Your task to perform on an android device: open a bookmark in the chrome app Image 0: 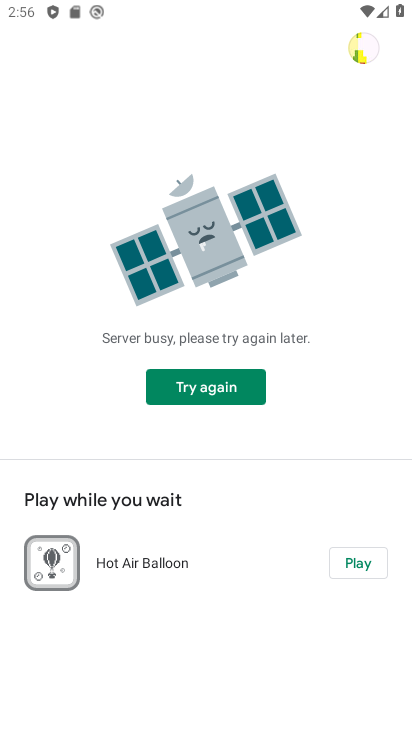
Step 0: press home button
Your task to perform on an android device: open a bookmark in the chrome app Image 1: 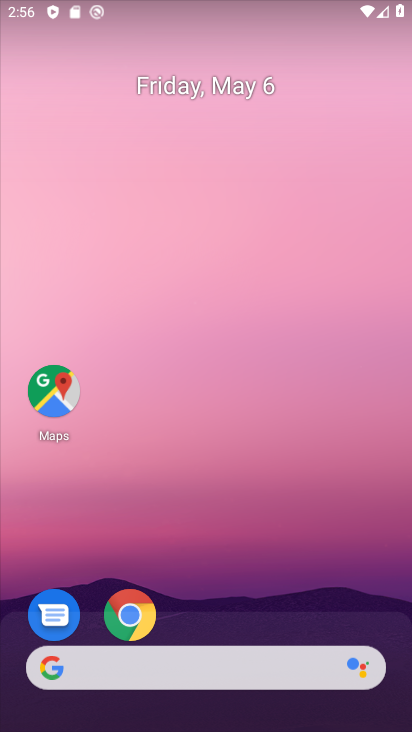
Step 1: click (134, 612)
Your task to perform on an android device: open a bookmark in the chrome app Image 2: 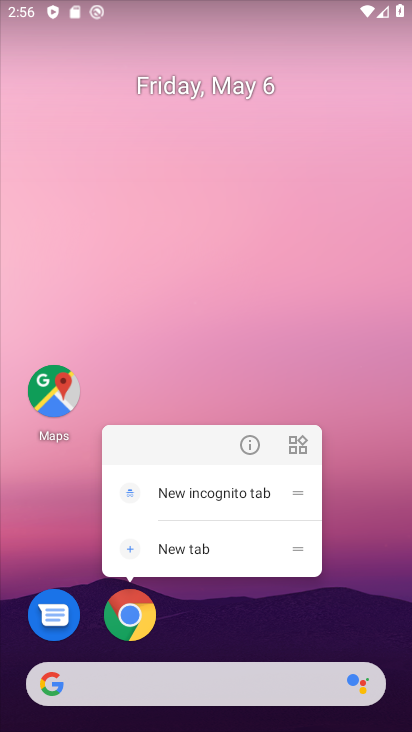
Step 2: click (137, 617)
Your task to perform on an android device: open a bookmark in the chrome app Image 3: 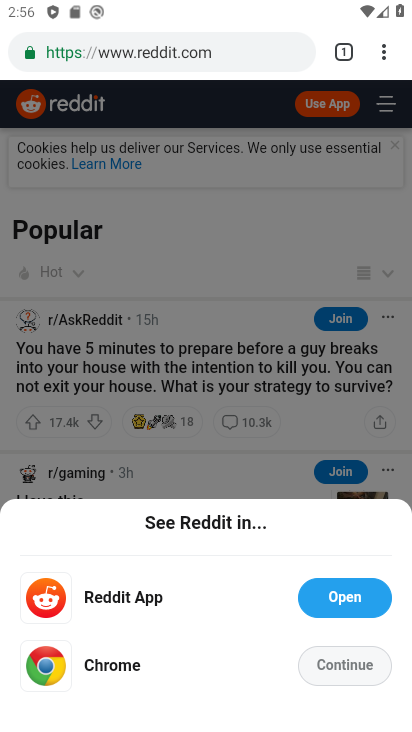
Step 3: click (385, 53)
Your task to perform on an android device: open a bookmark in the chrome app Image 4: 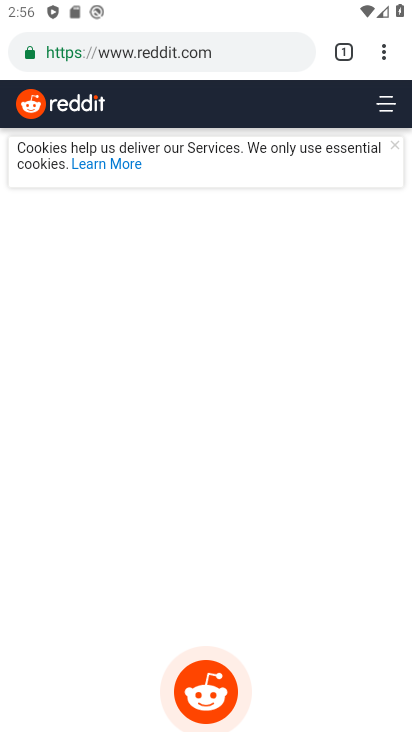
Step 4: click (385, 53)
Your task to perform on an android device: open a bookmark in the chrome app Image 5: 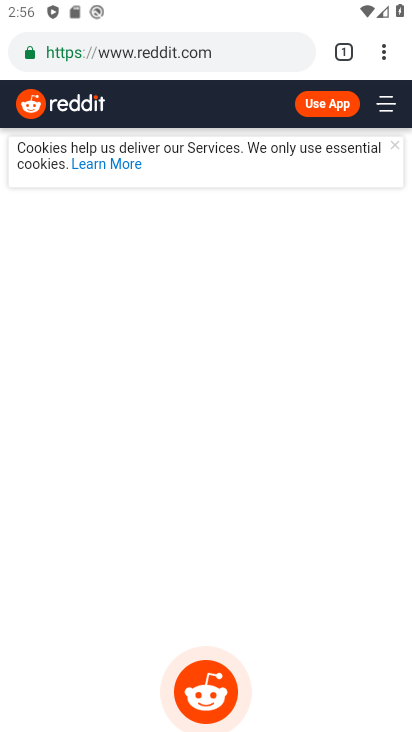
Step 5: drag from (385, 53) to (182, 199)
Your task to perform on an android device: open a bookmark in the chrome app Image 6: 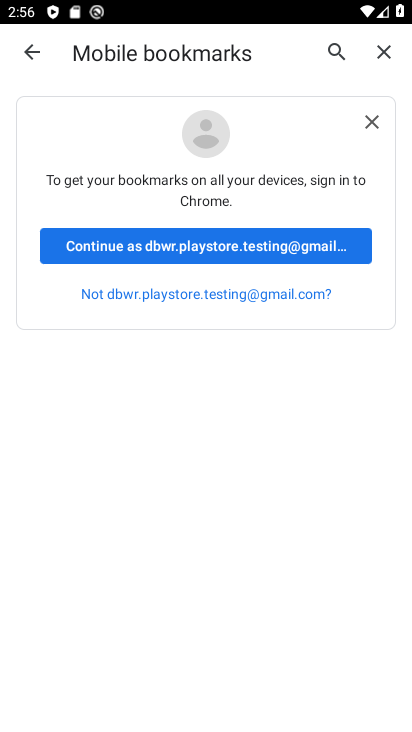
Step 6: click (177, 244)
Your task to perform on an android device: open a bookmark in the chrome app Image 7: 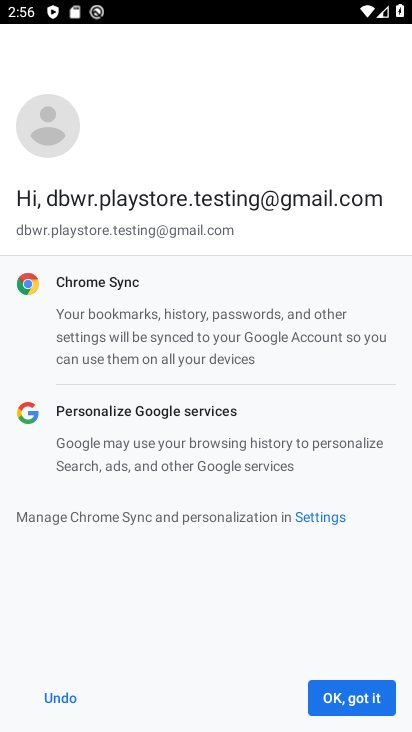
Step 7: click (330, 698)
Your task to perform on an android device: open a bookmark in the chrome app Image 8: 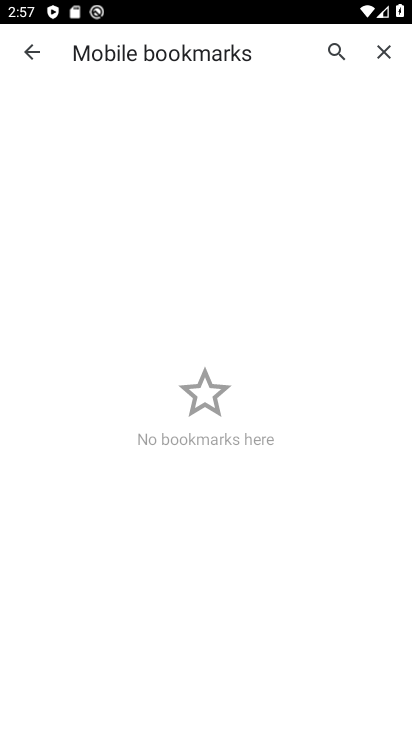
Step 8: task complete